Your task to perform on an android device: View the shopping cart on bestbuy. Add logitech g502 to the cart on bestbuy Image 0: 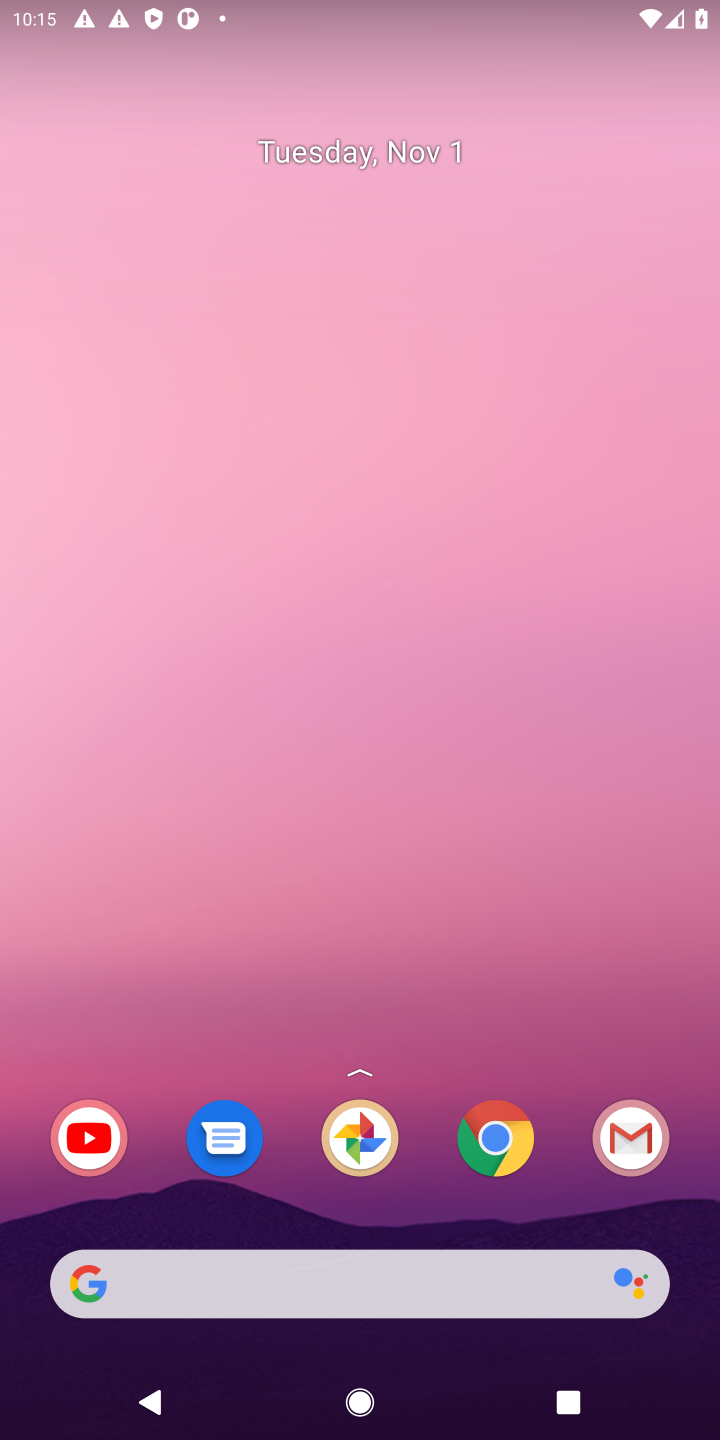
Step 0: click (497, 1149)
Your task to perform on an android device: View the shopping cart on bestbuy. Add logitech g502 to the cart on bestbuy Image 1: 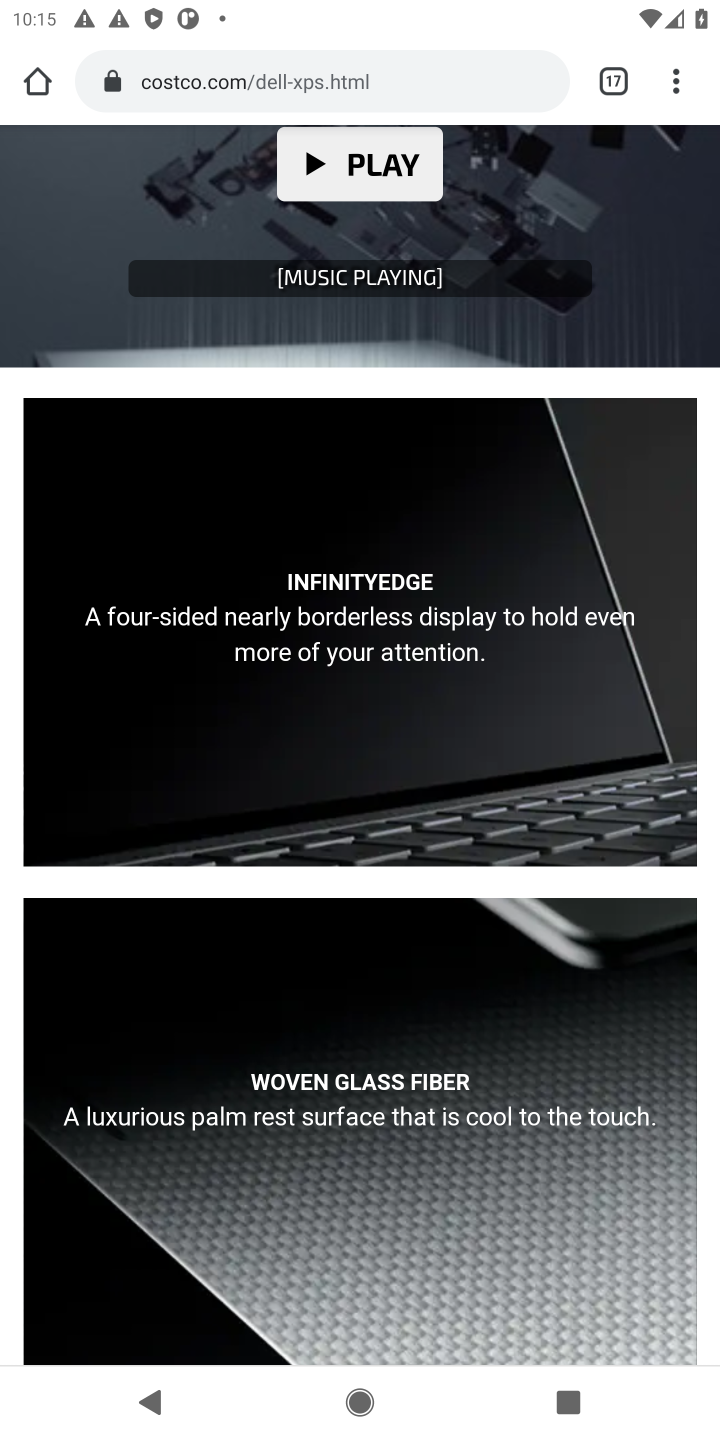
Step 1: drag from (673, 90) to (407, 159)
Your task to perform on an android device: View the shopping cart on bestbuy. Add logitech g502 to the cart on bestbuy Image 2: 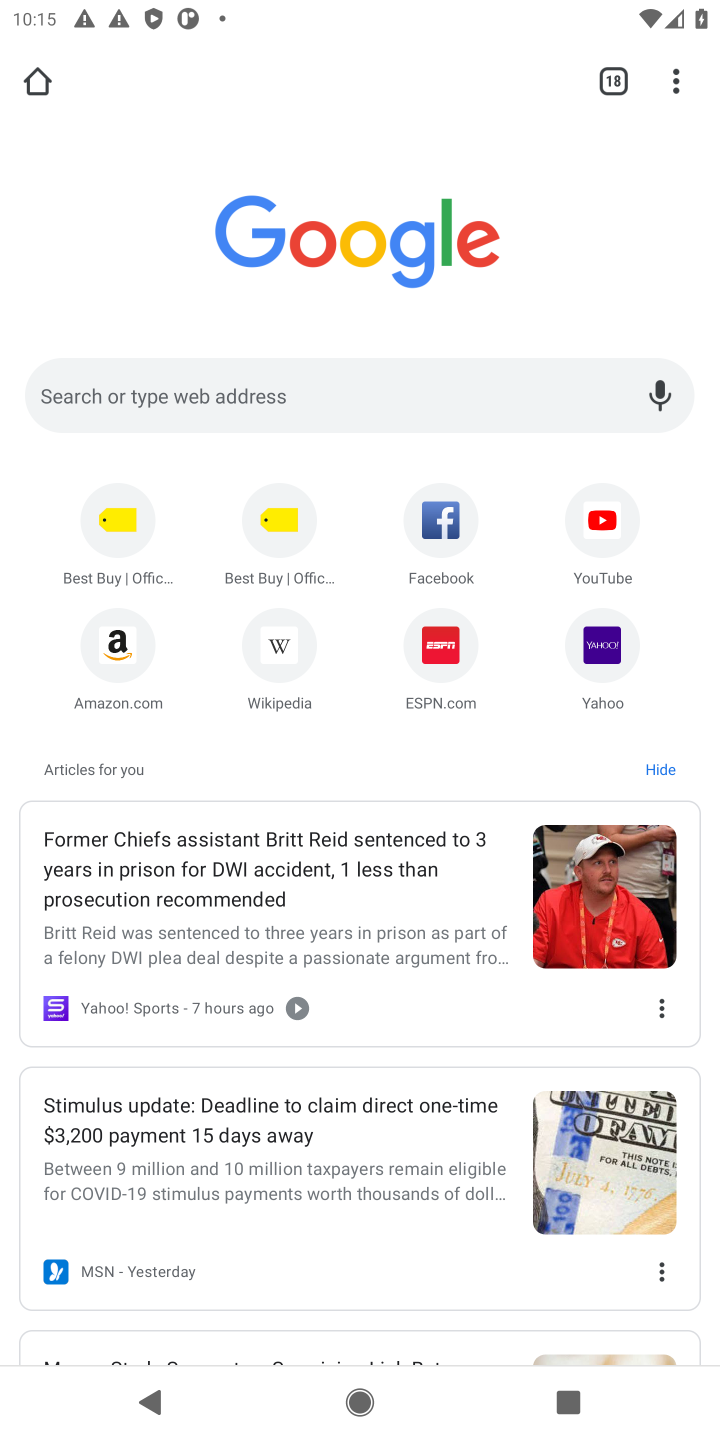
Step 2: click (285, 393)
Your task to perform on an android device: View the shopping cart on bestbuy. Add logitech g502 to the cart on bestbuy Image 3: 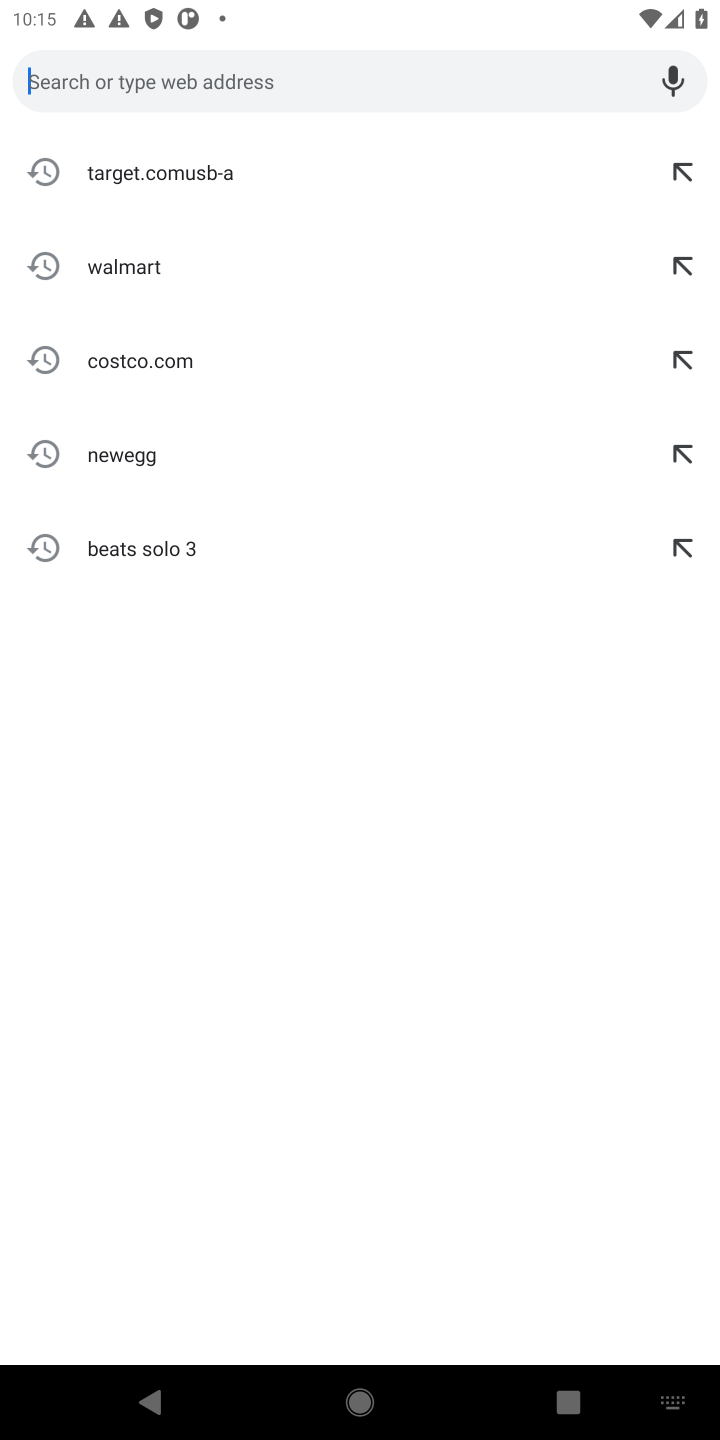
Step 3: type "bestbuy"
Your task to perform on an android device: View the shopping cart on bestbuy. Add logitech g502 to the cart on bestbuy Image 4: 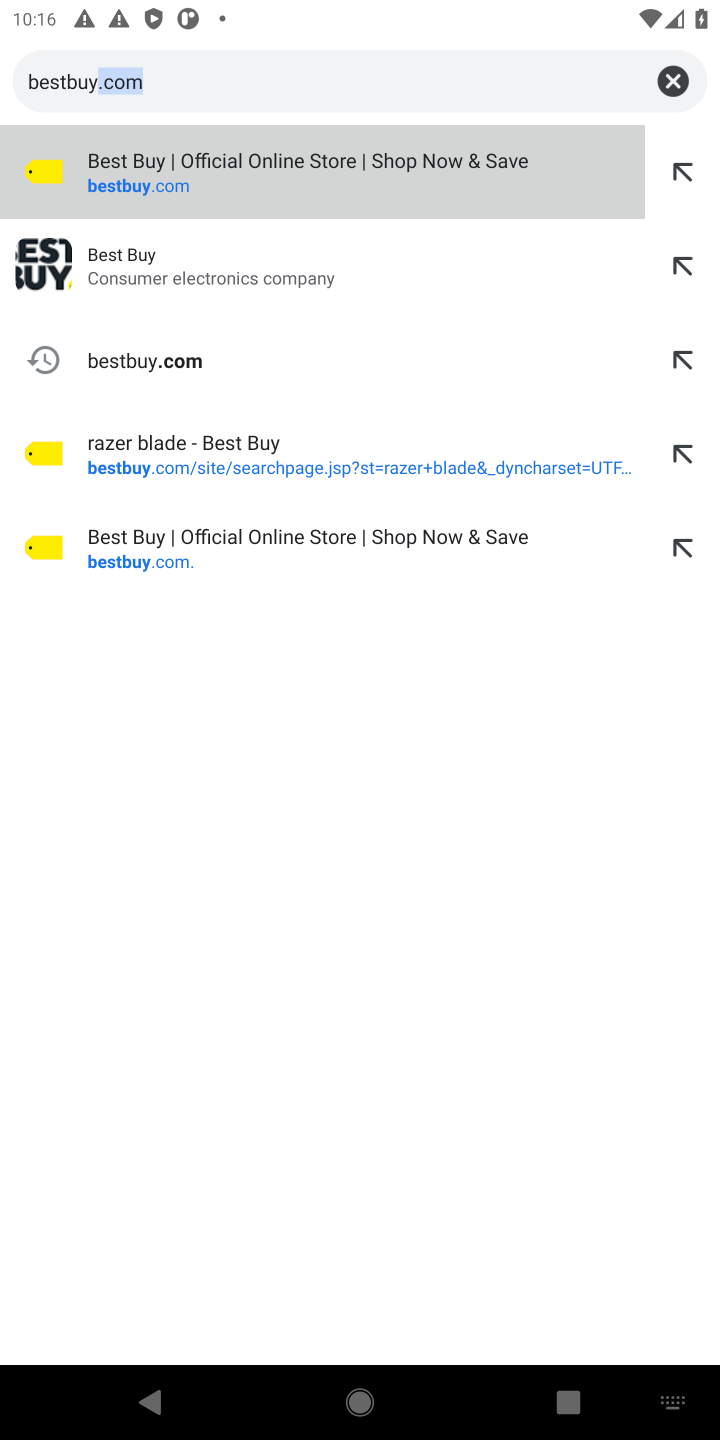
Step 4: type ""
Your task to perform on an android device: View the shopping cart on bestbuy. Add logitech g502 to the cart on bestbuy Image 5: 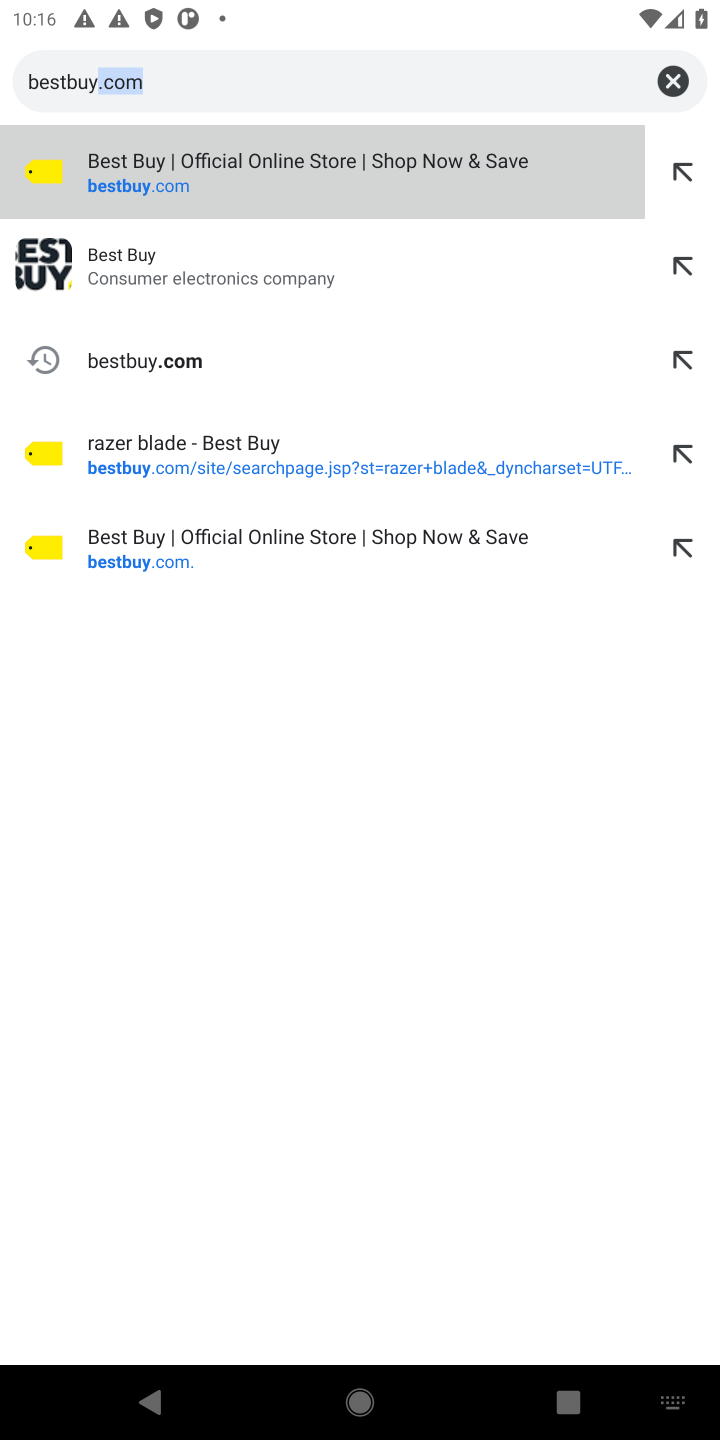
Step 5: click (139, 359)
Your task to perform on an android device: View the shopping cart on bestbuy. Add logitech g502 to the cart on bestbuy Image 6: 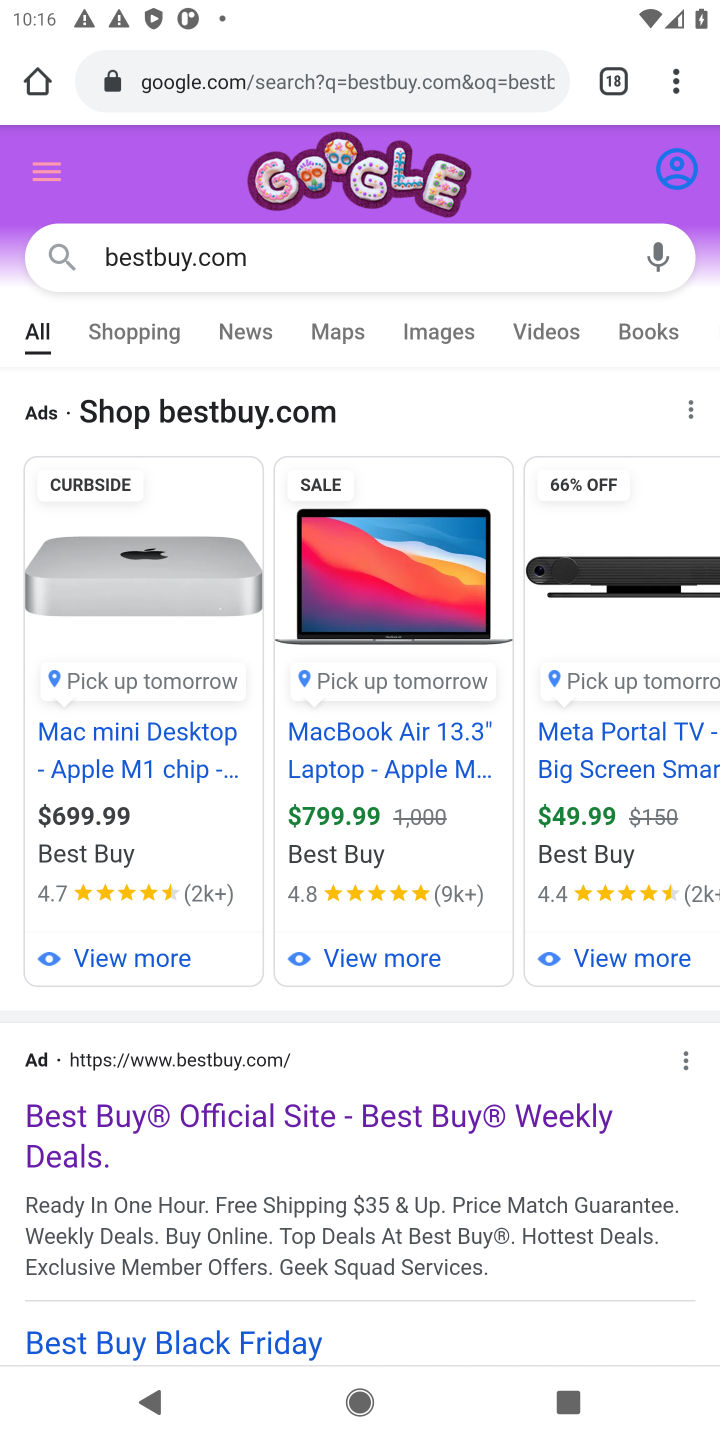
Step 6: click (218, 1123)
Your task to perform on an android device: View the shopping cart on bestbuy. Add logitech g502 to the cart on bestbuy Image 7: 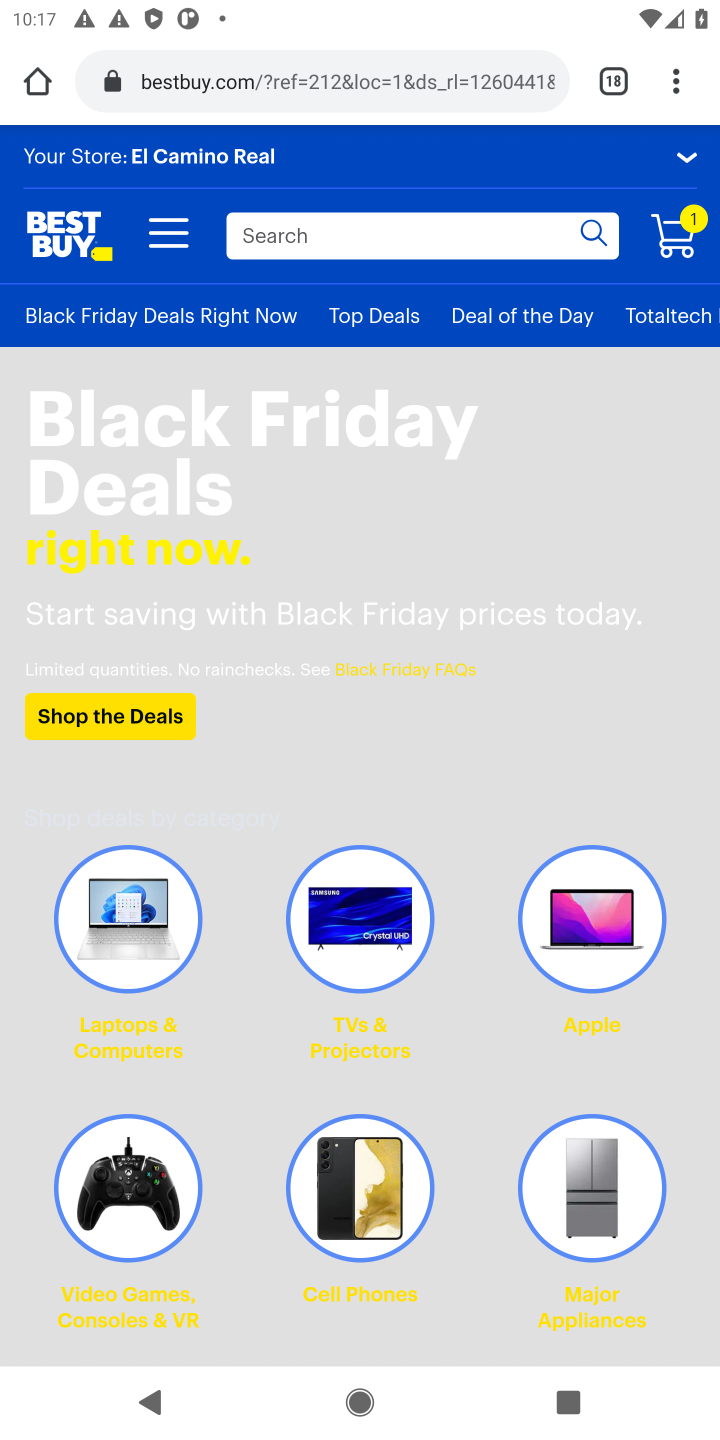
Step 7: click (489, 226)
Your task to perform on an android device: View the shopping cart on bestbuy. Add logitech g502 to the cart on bestbuy Image 8: 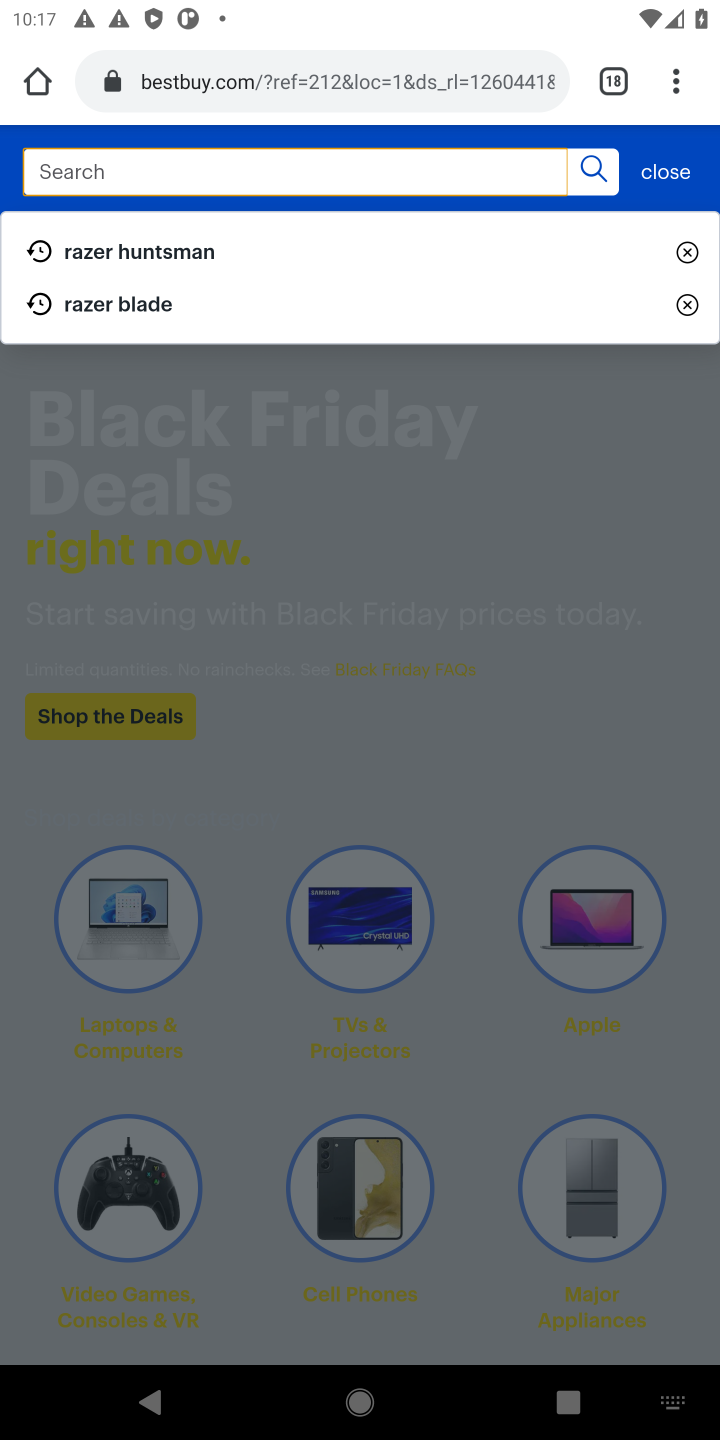
Step 8: type "ogitech g502 "
Your task to perform on an android device: View the shopping cart on bestbuy. Add logitech g502 to the cart on bestbuy Image 9: 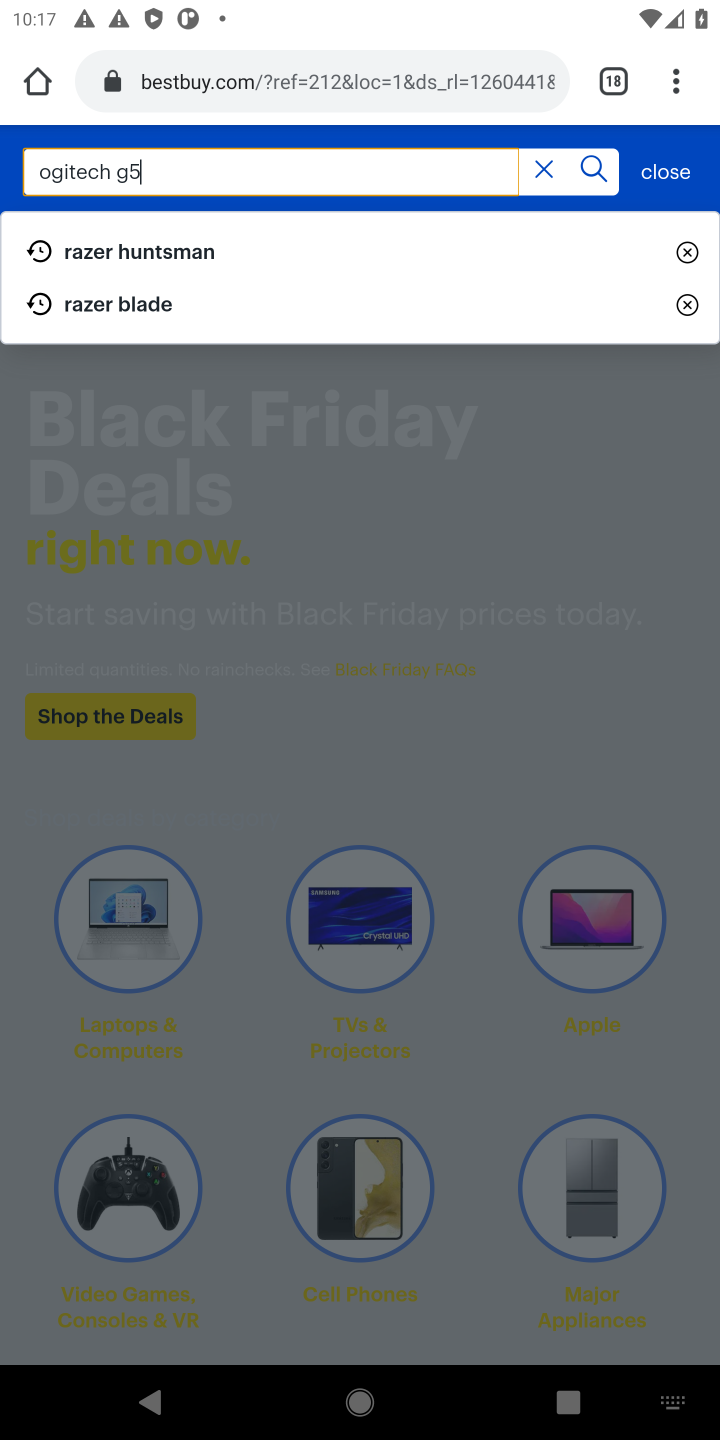
Step 9: type ""
Your task to perform on an android device: View the shopping cart on bestbuy. Add logitech g502 to the cart on bestbuy Image 10: 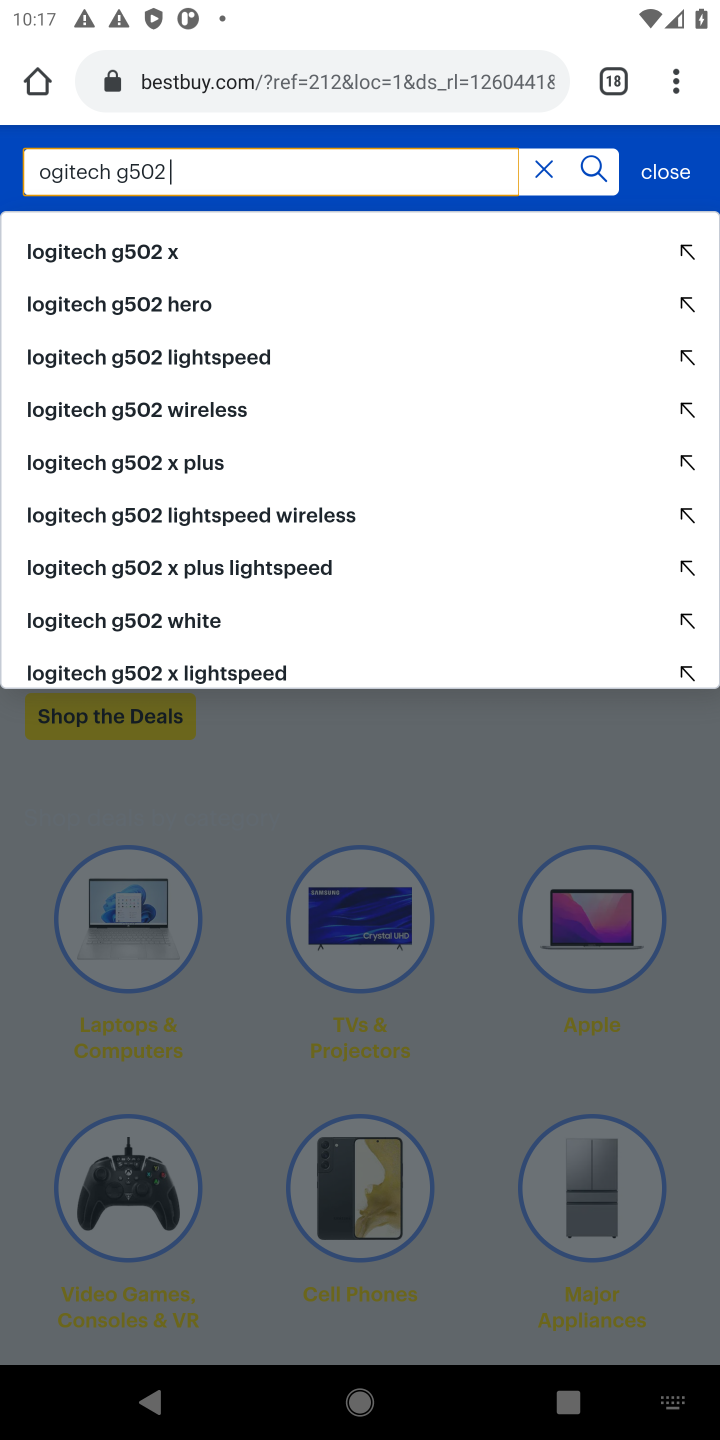
Step 10: click (122, 252)
Your task to perform on an android device: View the shopping cart on bestbuy. Add logitech g502 to the cart on bestbuy Image 11: 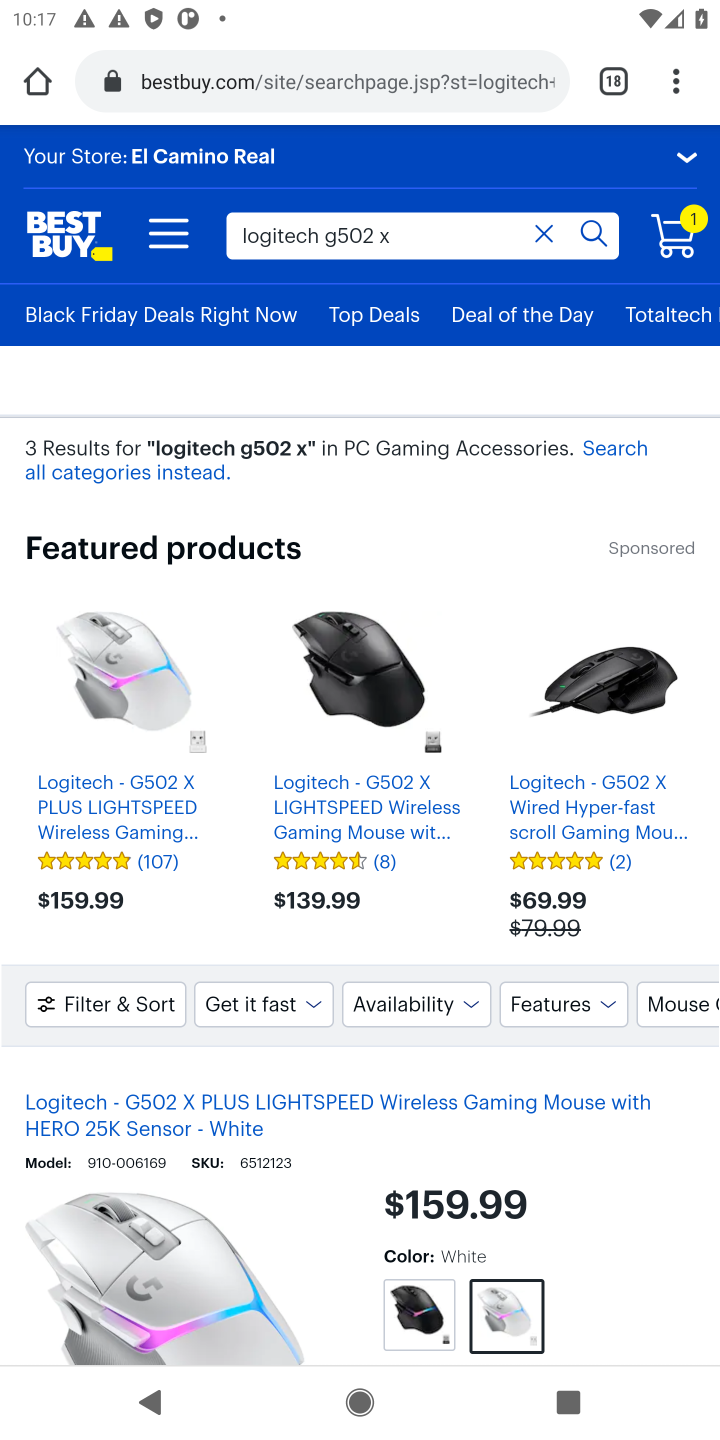
Step 11: click (153, 794)
Your task to perform on an android device: View the shopping cart on bestbuy. Add logitech g502 to the cart on bestbuy Image 12: 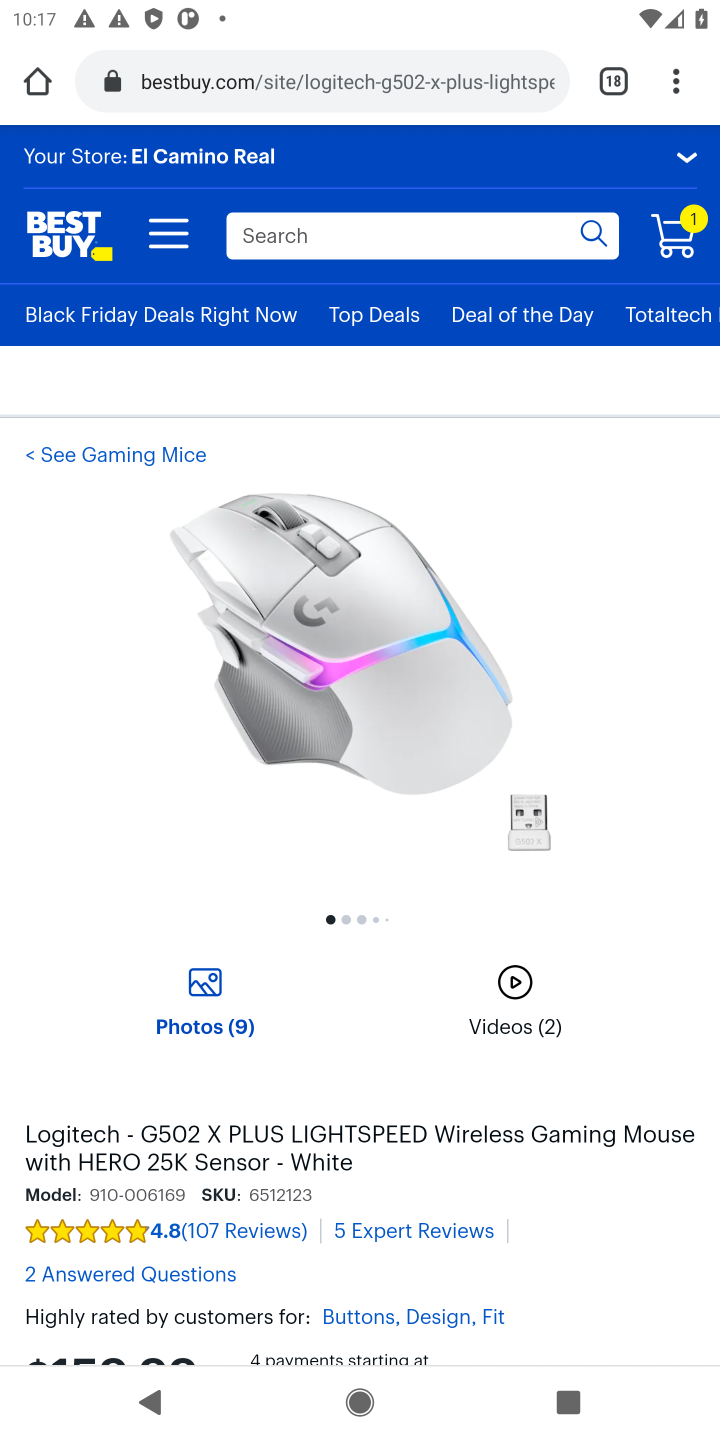
Step 12: drag from (298, 1310) to (268, 588)
Your task to perform on an android device: View the shopping cart on bestbuy. Add logitech g502 to the cart on bestbuy Image 13: 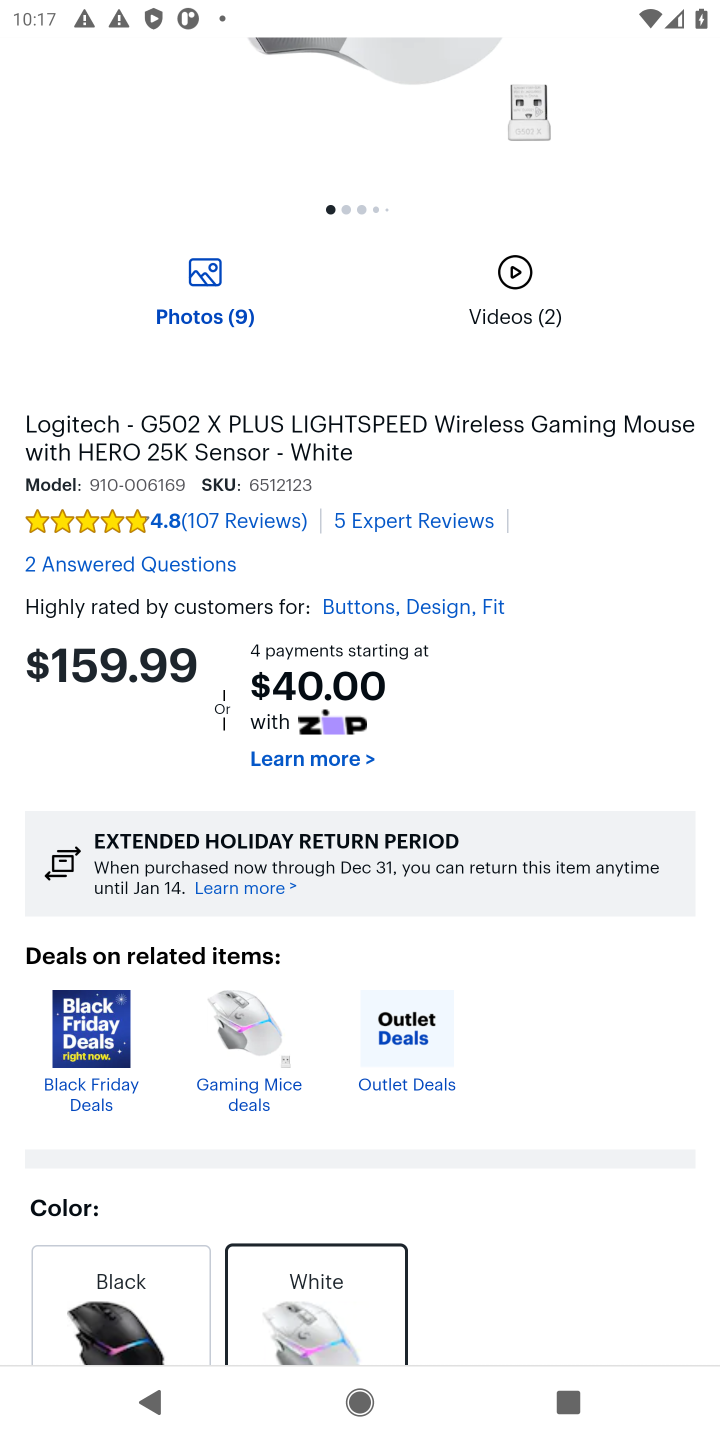
Step 13: drag from (297, 1078) to (350, 474)
Your task to perform on an android device: View the shopping cart on bestbuy. Add logitech g502 to the cart on bestbuy Image 14: 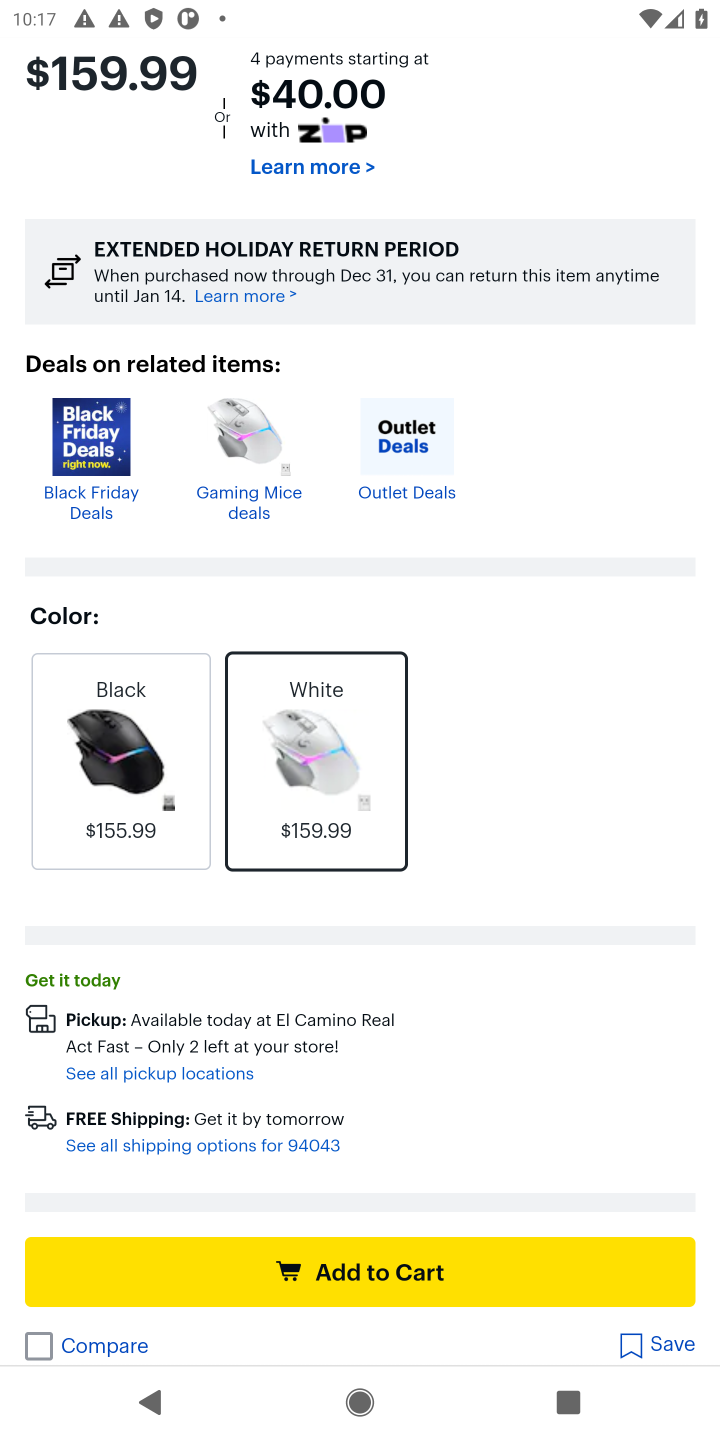
Step 14: click (457, 1263)
Your task to perform on an android device: View the shopping cart on bestbuy. Add logitech g502 to the cart on bestbuy Image 15: 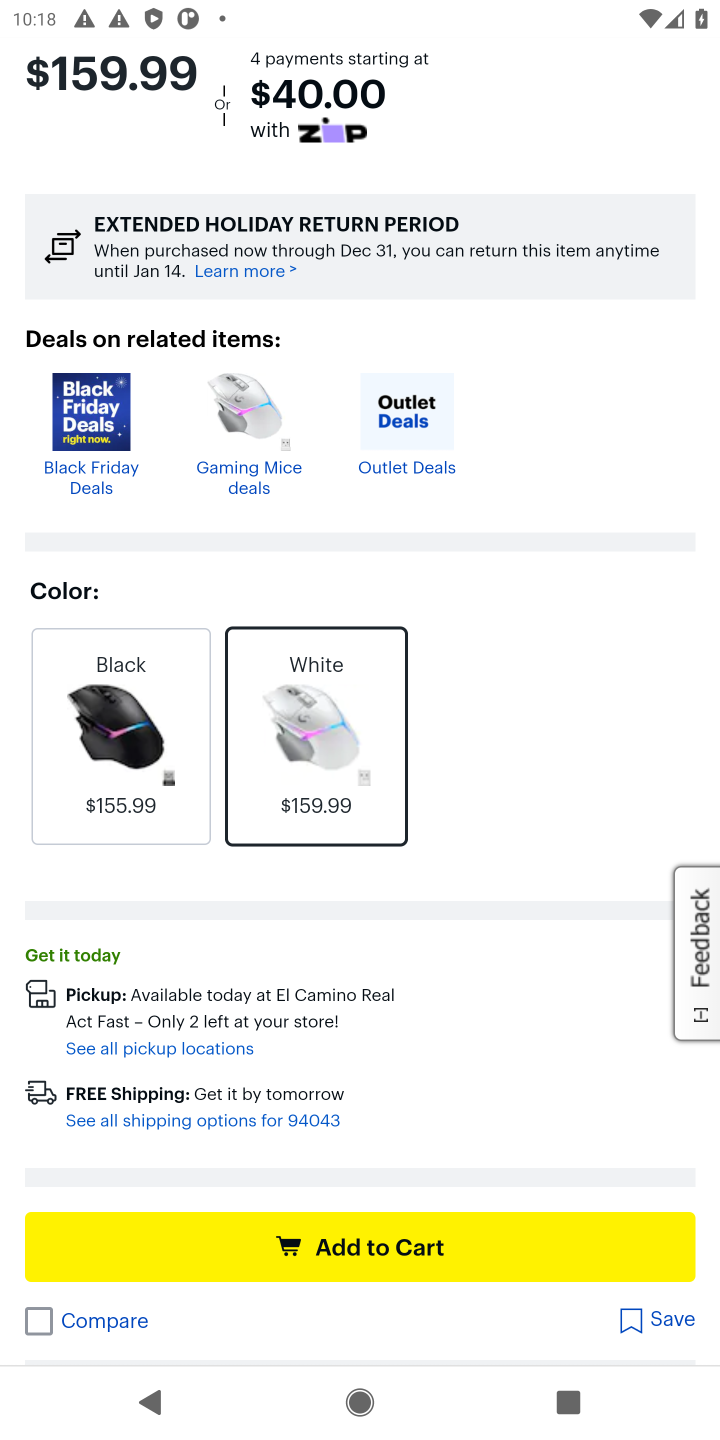
Step 15: task complete